Your task to perform on an android device: open wifi settings Image 0: 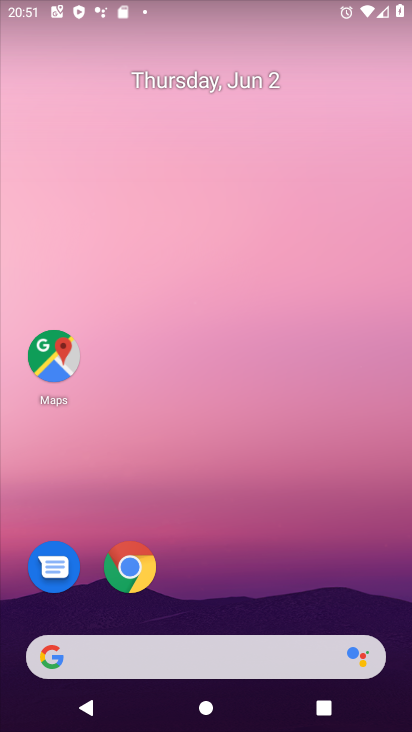
Step 0: drag from (244, 550) to (232, 160)
Your task to perform on an android device: open wifi settings Image 1: 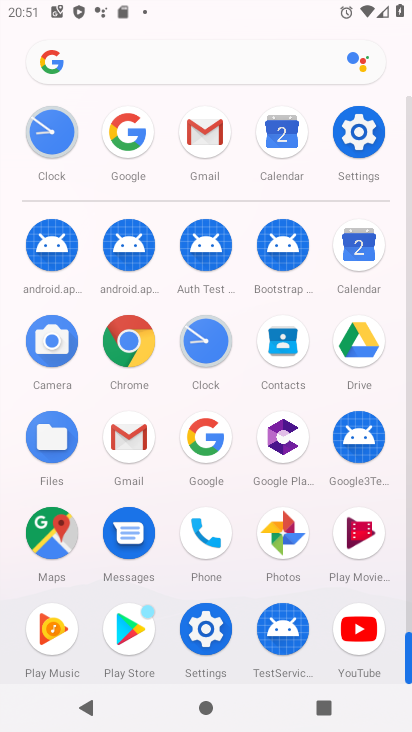
Step 1: click (358, 130)
Your task to perform on an android device: open wifi settings Image 2: 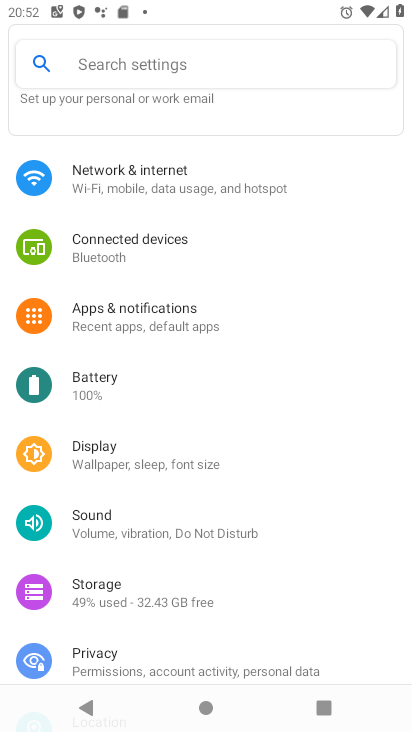
Step 2: click (231, 182)
Your task to perform on an android device: open wifi settings Image 3: 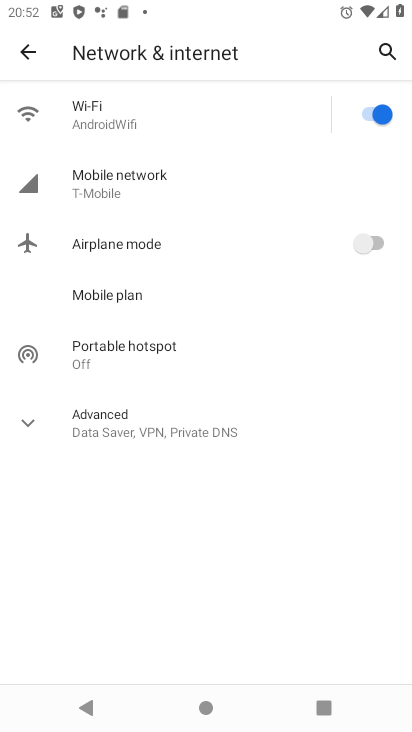
Step 3: click (101, 119)
Your task to perform on an android device: open wifi settings Image 4: 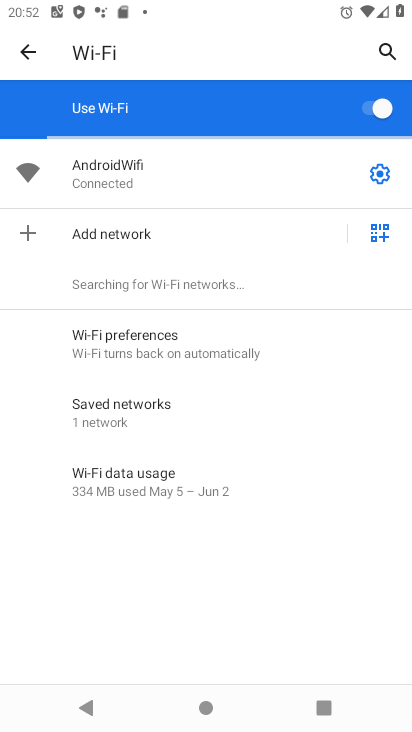
Step 4: click (381, 177)
Your task to perform on an android device: open wifi settings Image 5: 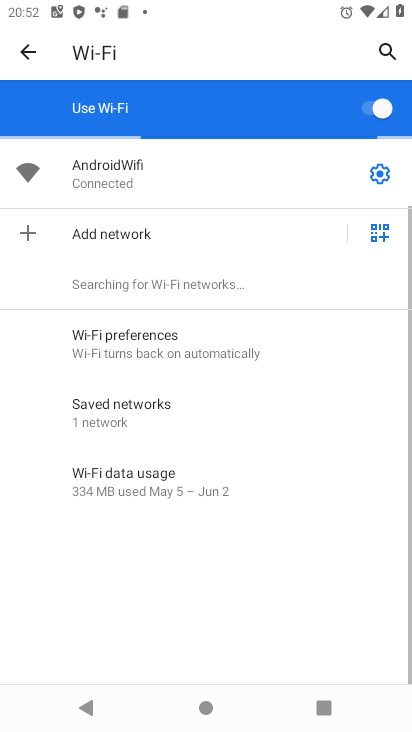
Step 5: task complete